Your task to perform on an android device: turn smart compose on in the gmail app Image 0: 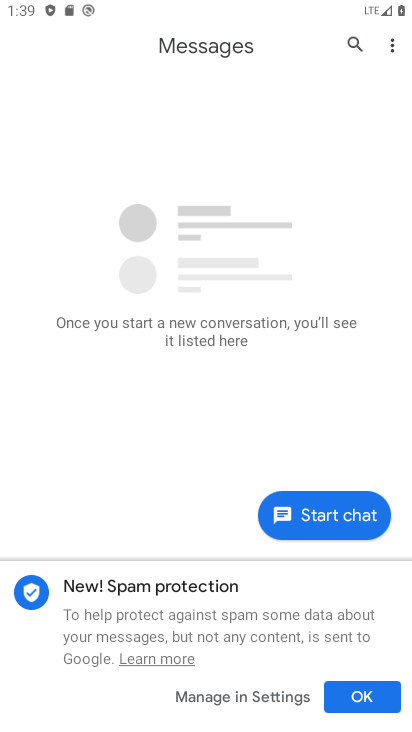
Step 0: press home button
Your task to perform on an android device: turn smart compose on in the gmail app Image 1: 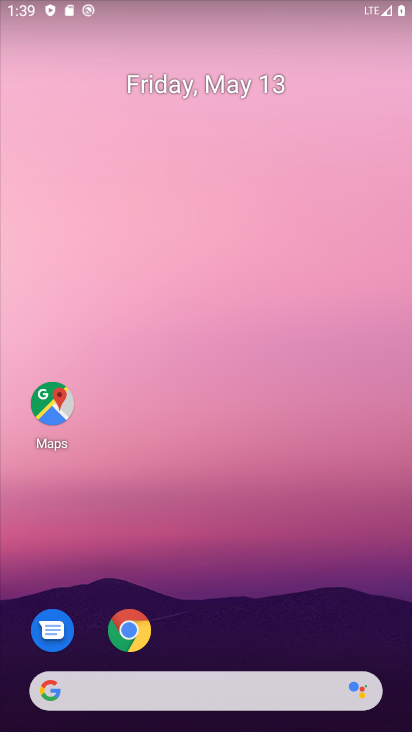
Step 1: drag from (293, 685) to (308, 85)
Your task to perform on an android device: turn smart compose on in the gmail app Image 2: 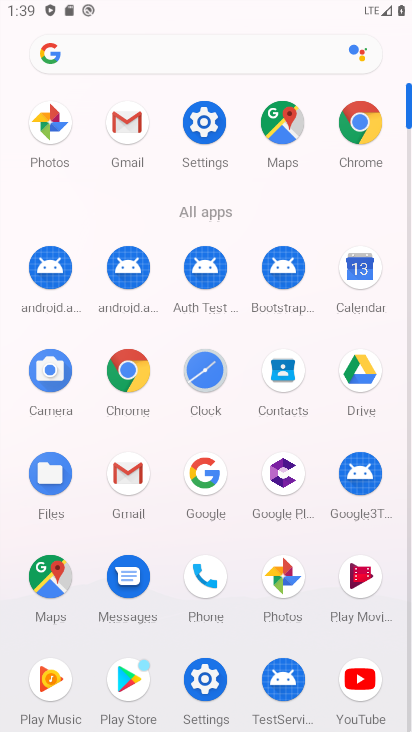
Step 2: click (133, 130)
Your task to perform on an android device: turn smart compose on in the gmail app Image 3: 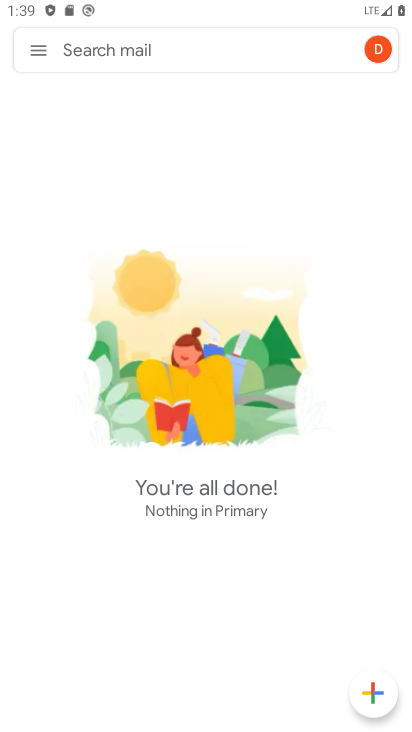
Step 3: click (47, 46)
Your task to perform on an android device: turn smart compose on in the gmail app Image 4: 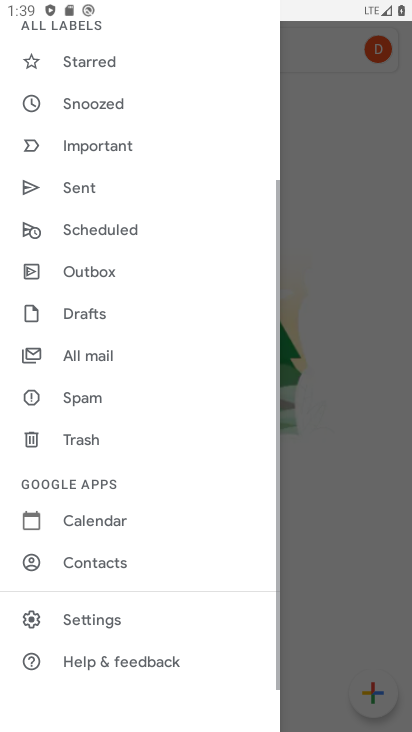
Step 4: drag from (178, 644) to (230, 265)
Your task to perform on an android device: turn smart compose on in the gmail app Image 5: 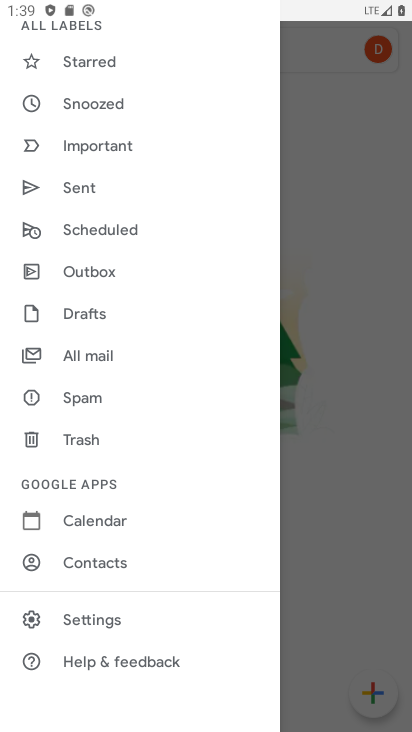
Step 5: click (101, 623)
Your task to perform on an android device: turn smart compose on in the gmail app Image 6: 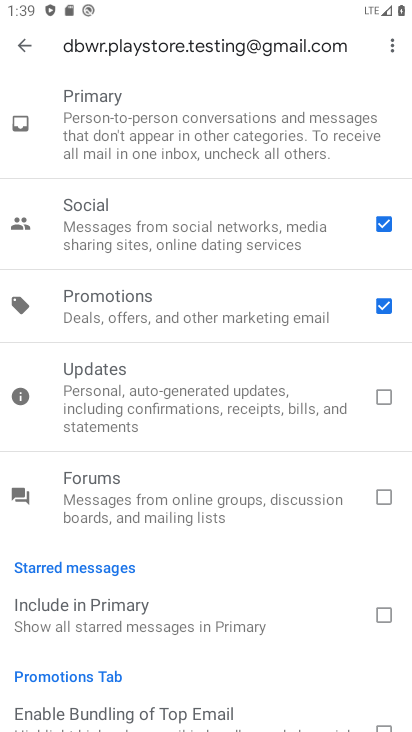
Step 6: drag from (227, 258) to (278, 721)
Your task to perform on an android device: turn smart compose on in the gmail app Image 7: 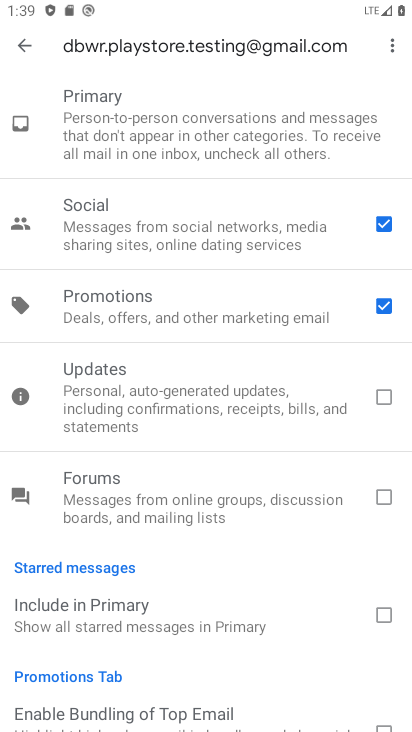
Step 7: drag from (198, 587) to (338, 77)
Your task to perform on an android device: turn smart compose on in the gmail app Image 8: 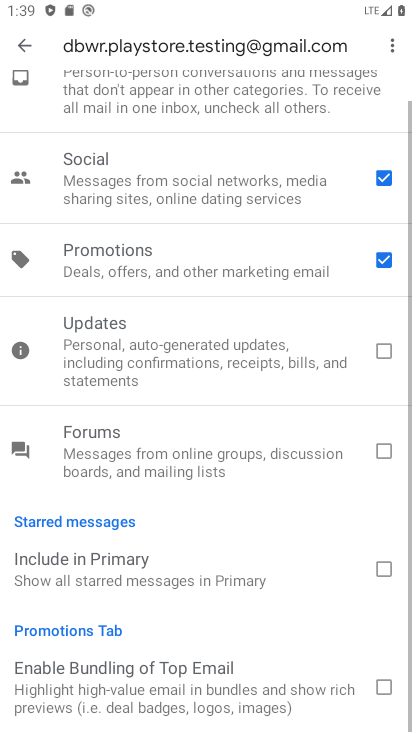
Step 8: drag from (222, 131) to (197, 616)
Your task to perform on an android device: turn smart compose on in the gmail app Image 9: 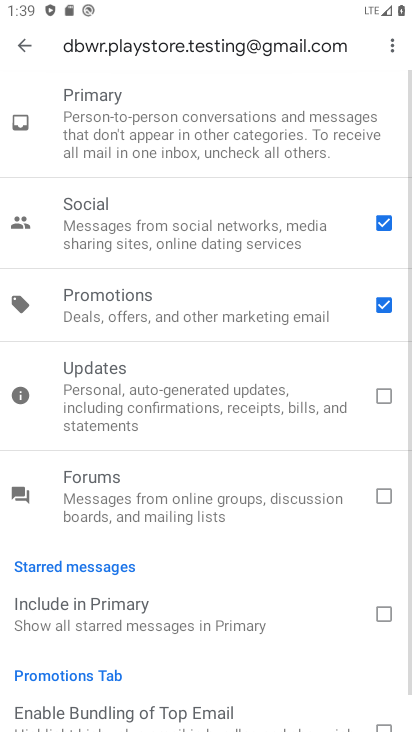
Step 9: click (28, 44)
Your task to perform on an android device: turn smart compose on in the gmail app Image 10: 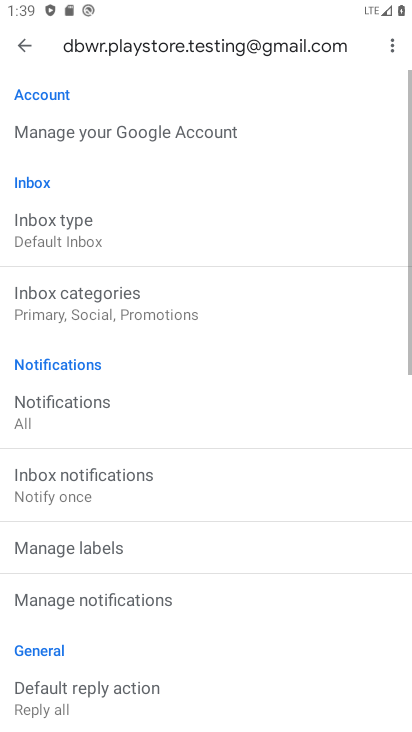
Step 10: task complete